Your task to perform on an android device: open chrome privacy settings Image 0: 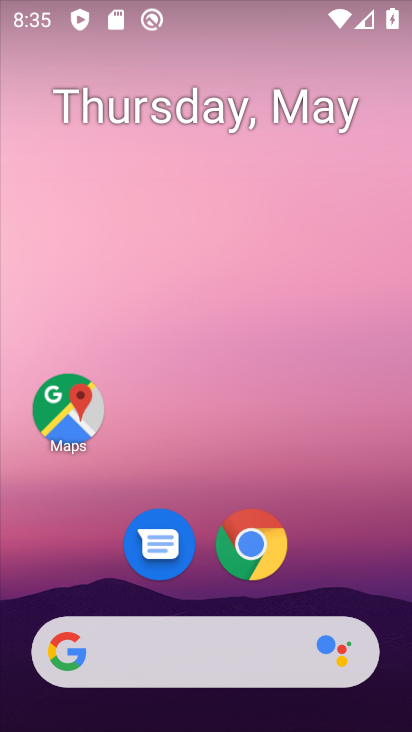
Step 0: click (245, 538)
Your task to perform on an android device: open chrome privacy settings Image 1: 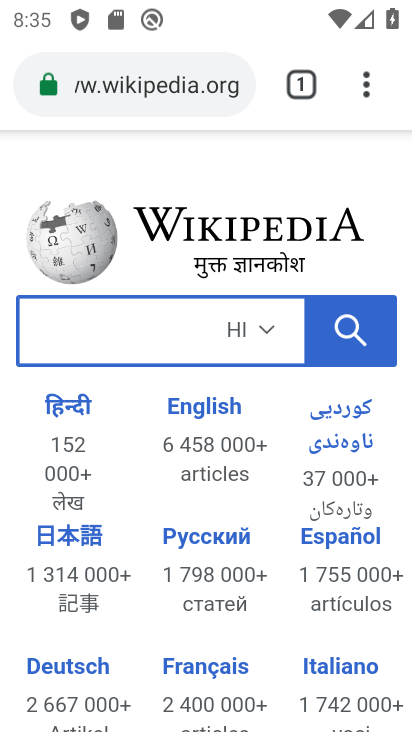
Step 1: click (367, 98)
Your task to perform on an android device: open chrome privacy settings Image 2: 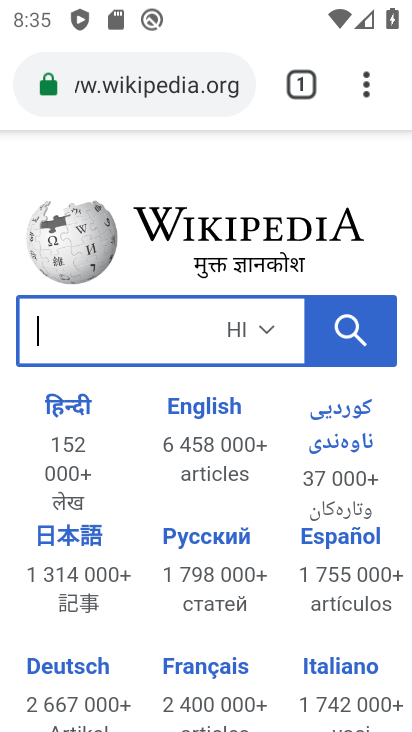
Step 2: click (372, 86)
Your task to perform on an android device: open chrome privacy settings Image 3: 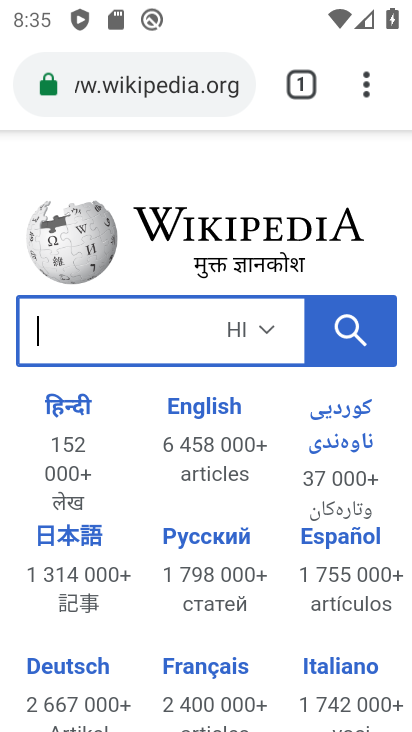
Step 3: click (406, 107)
Your task to perform on an android device: open chrome privacy settings Image 4: 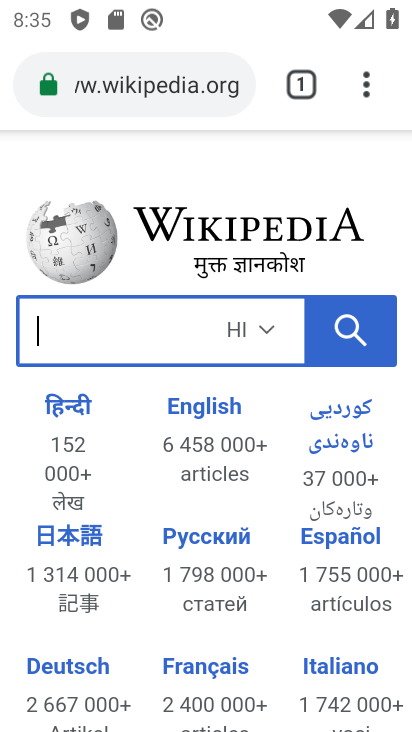
Step 4: click (404, 119)
Your task to perform on an android device: open chrome privacy settings Image 5: 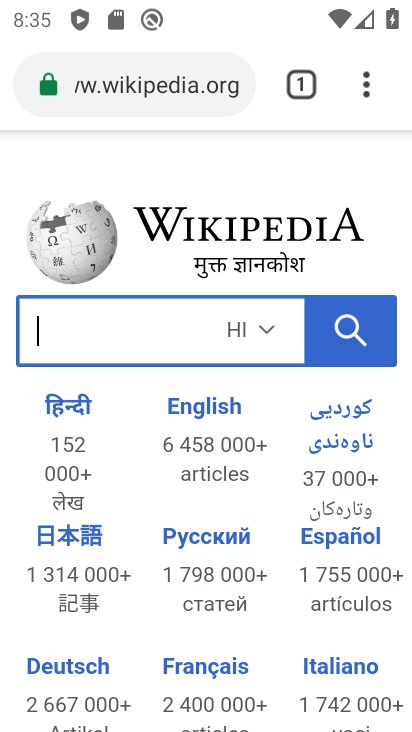
Step 5: click (388, 96)
Your task to perform on an android device: open chrome privacy settings Image 6: 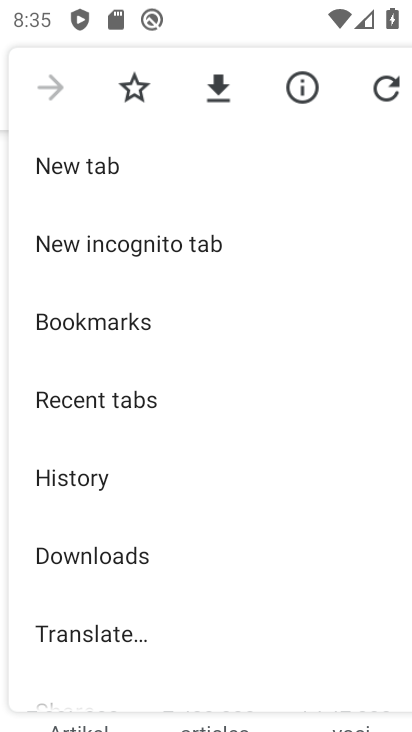
Step 6: drag from (198, 598) to (249, 266)
Your task to perform on an android device: open chrome privacy settings Image 7: 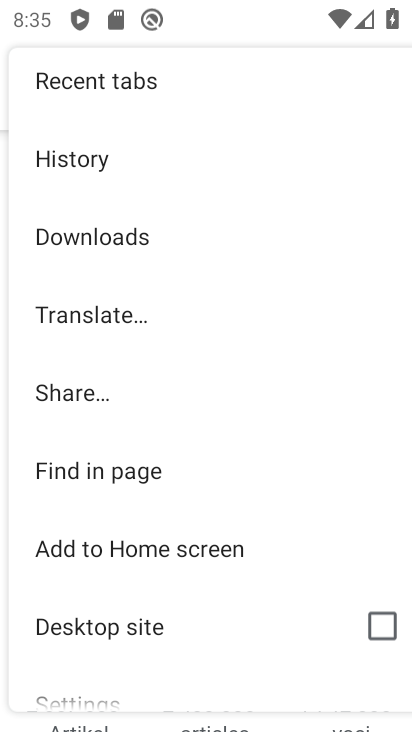
Step 7: drag from (143, 661) to (102, 281)
Your task to perform on an android device: open chrome privacy settings Image 8: 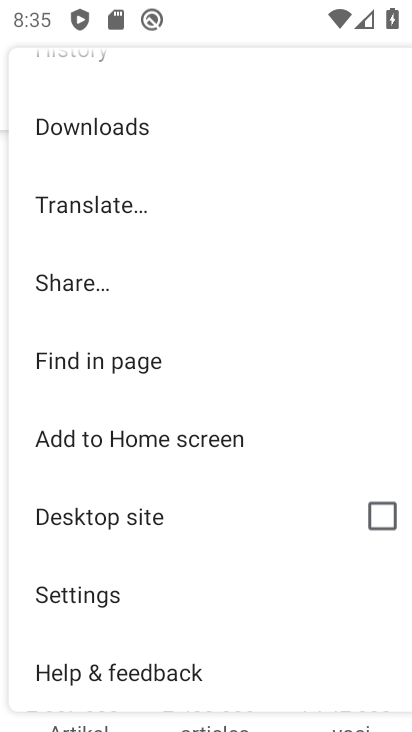
Step 8: click (146, 595)
Your task to perform on an android device: open chrome privacy settings Image 9: 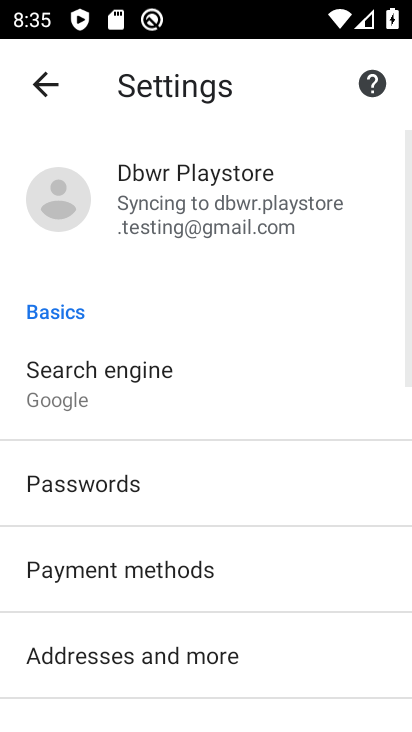
Step 9: drag from (111, 664) to (84, 536)
Your task to perform on an android device: open chrome privacy settings Image 10: 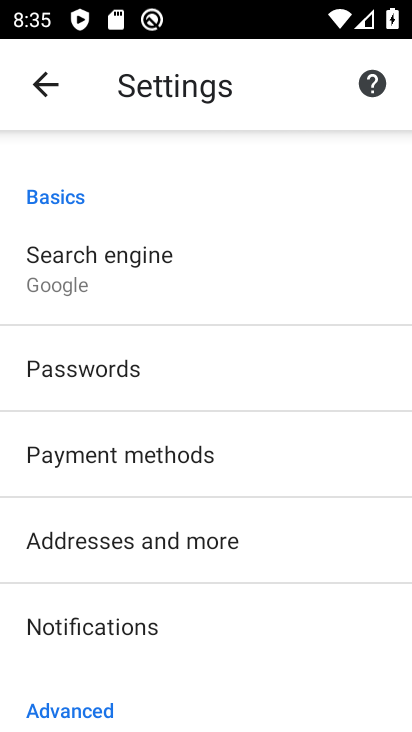
Step 10: drag from (98, 642) to (70, 548)
Your task to perform on an android device: open chrome privacy settings Image 11: 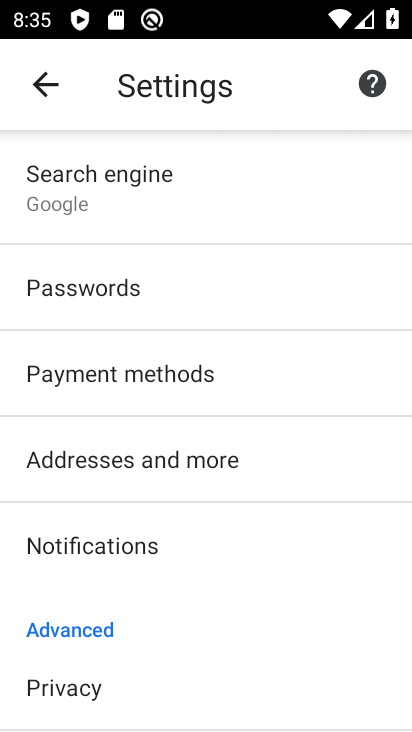
Step 11: click (115, 683)
Your task to perform on an android device: open chrome privacy settings Image 12: 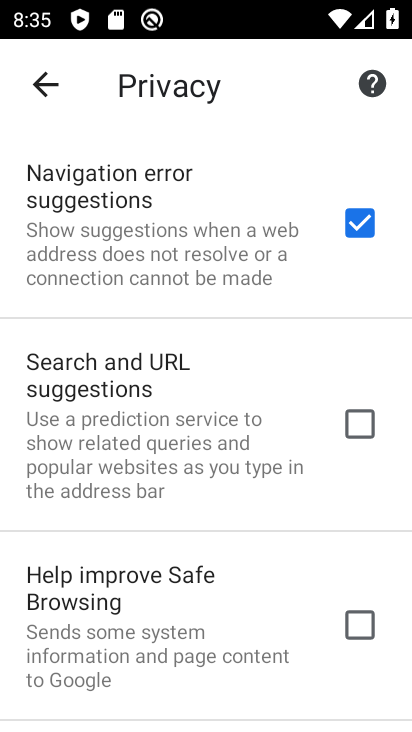
Step 12: task complete